Your task to perform on an android device: When is my next appointment? Image 0: 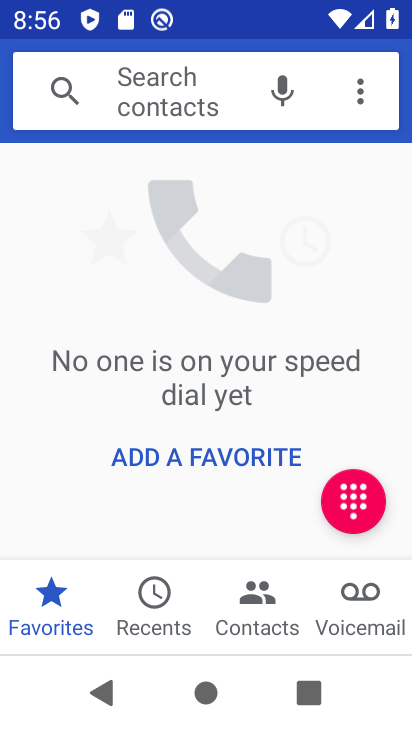
Step 0: press home button
Your task to perform on an android device: When is my next appointment? Image 1: 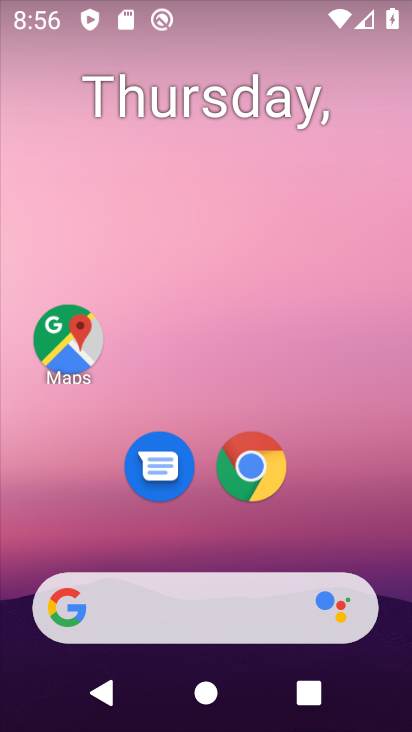
Step 1: drag from (140, 620) to (297, 177)
Your task to perform on an android device: When is my next appointment? Image 2: 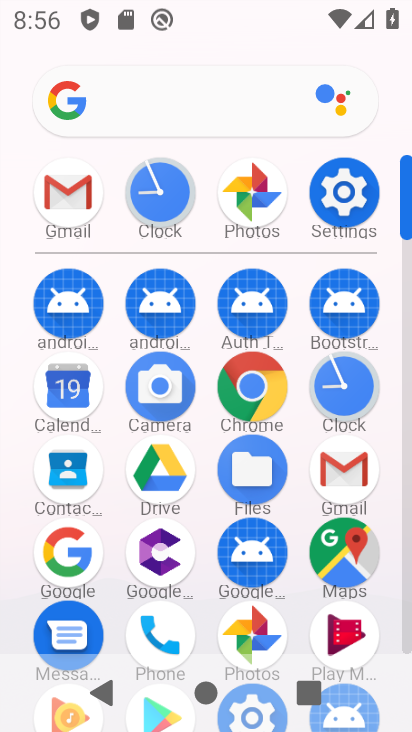
Step 2: click (64, 388)
Your task to perform on an android device: When is my next appointment? Image 3: 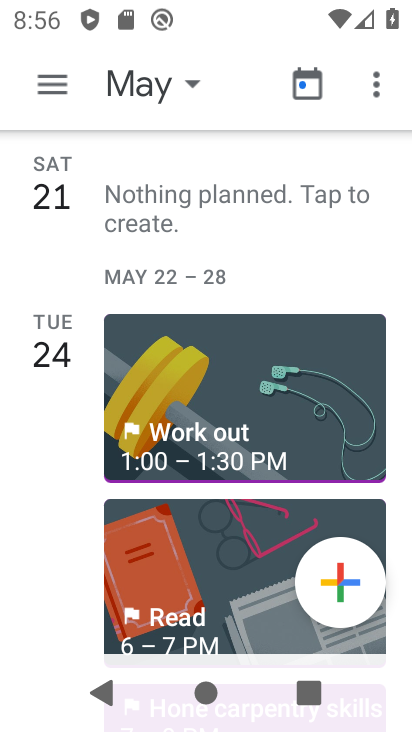
Step 3: click (136, 90)
Your task to perform on an android device: When is my next appointment? Image 4: 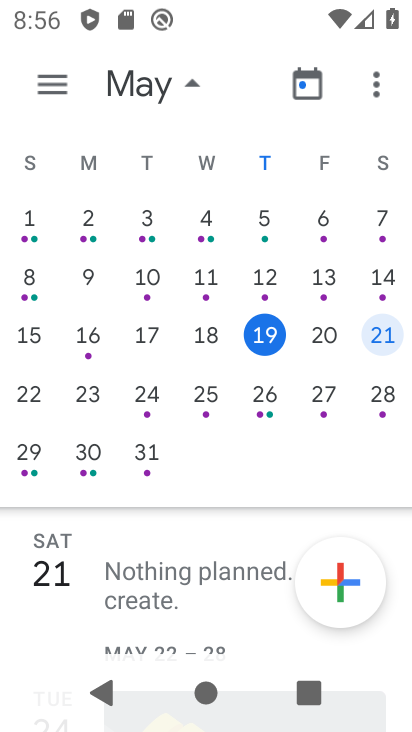
Step 4: click (256, 330)
Your task to perform on an android device: When is my next appointment? Image 5: 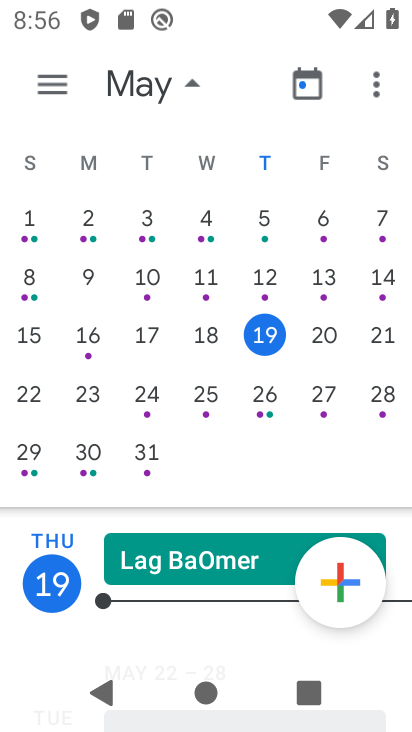
Step 5: click (55, 80)
Your task to perform on an android device: When is my next appointment? Image 6: 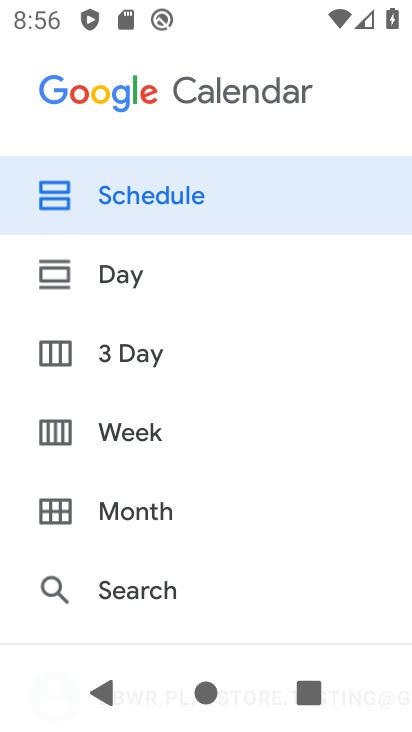
Step 6: click (111, 203)
Your task to perform on an android device: When is my next appointment? Image 7: 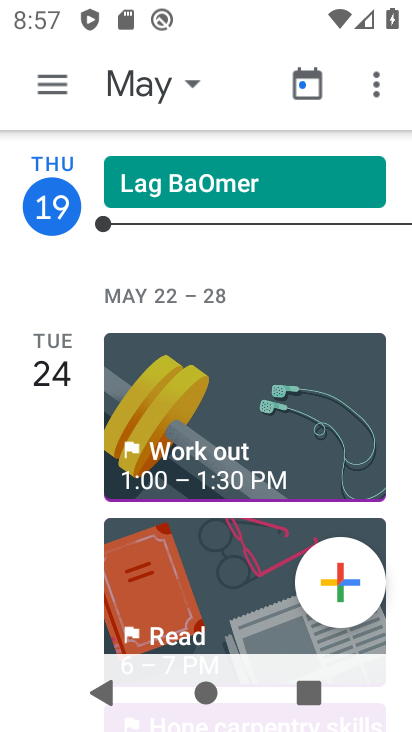
Step 7: drag from (206, 597) to (320, 248)
Your task to perform on an android device: When is my next appointment? Image 8: 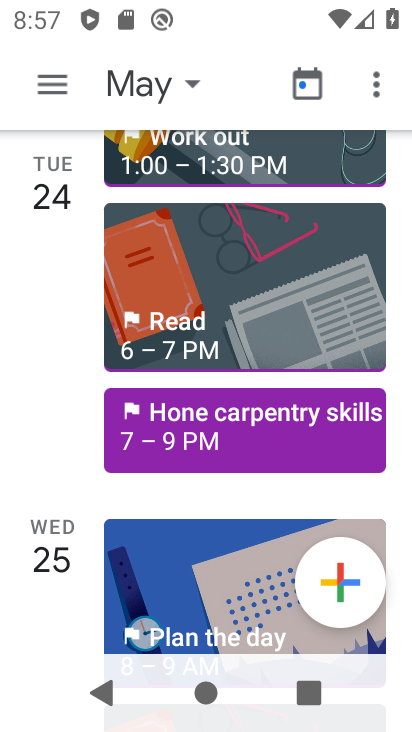
Step 8: click (232, 430)
Your task to perform on an android device: When is my next appointment? Image 9: 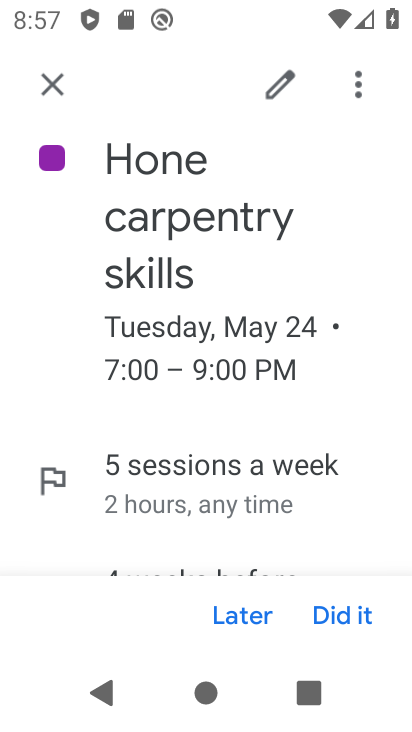
Step 9: task complete